Your task to perform on an android device: Go to wifi settings Image 0: 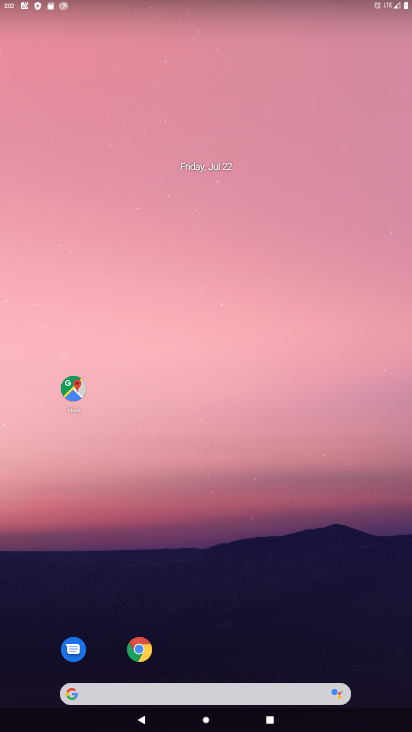
Step 0: drag from (217, 534) to (233, 246)
Your task to perform on an android device: Go to wifi settings Image 1: 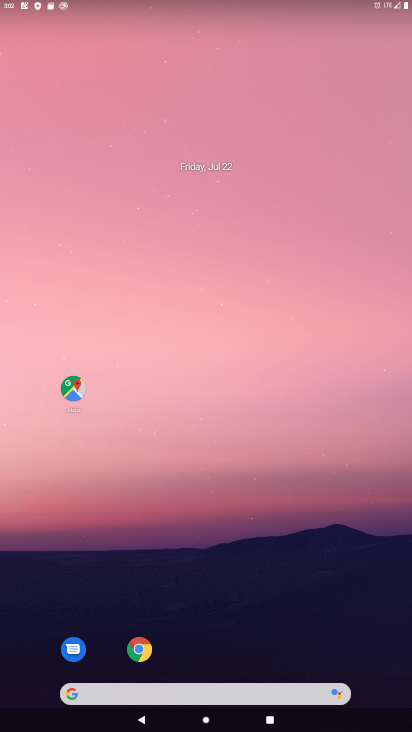
Step 1: drag from (217, 584) to (233, 464)
Your task to perform on an android device: Go to wifi settings Image 2: 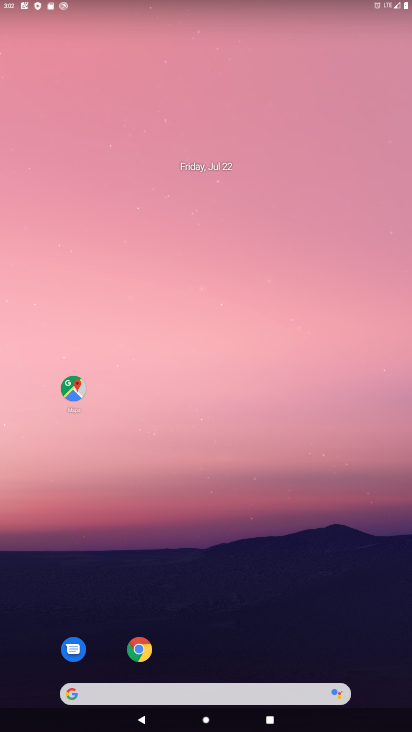
Step 2: drag from (198, 615) to (201, 149)
Your task to perform on an android device: Go to wifi settings Image 3: 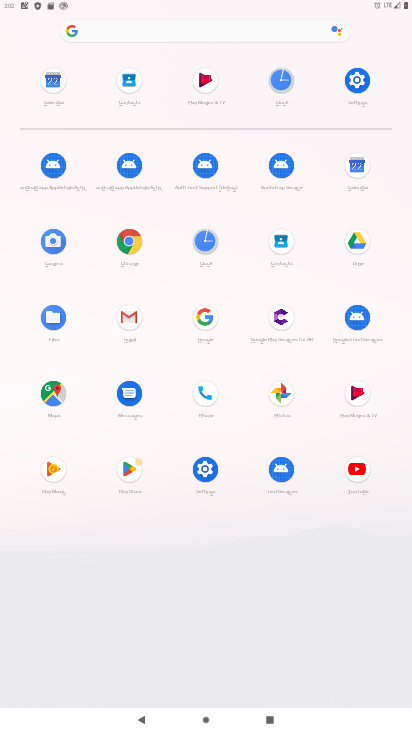
Step 3: click (202, 464)
Your task to perform on an android device: Go to wifi settings Image 4: 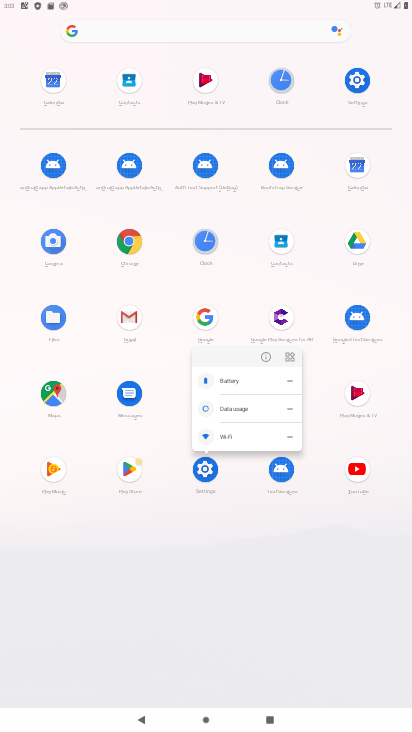
Step 4: click (262, 352)
Your task to perform on an android device: Go to wifi settings Image 5: 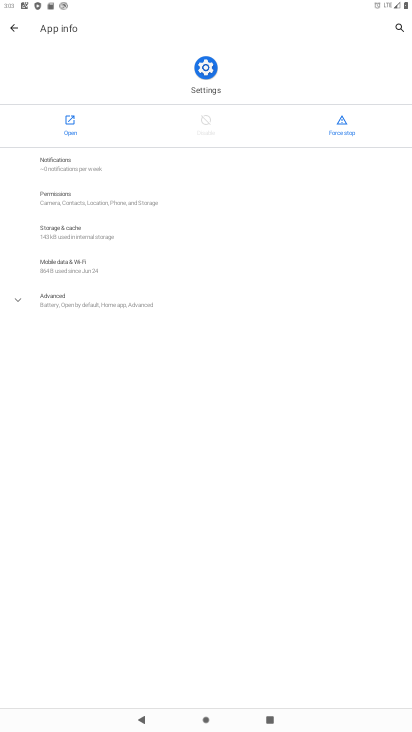
Step 5: drag from (235, 608) to (235, 473)
Your task to perform on an android device: Go to wifi settings Image 6: 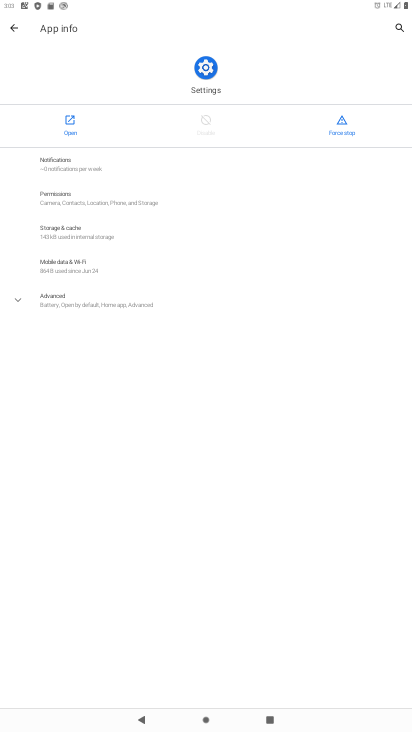
Step 6: drag from (201, 629) to (211, 310)
Your task to perform on an android device: Go to wifi settings Image 7: 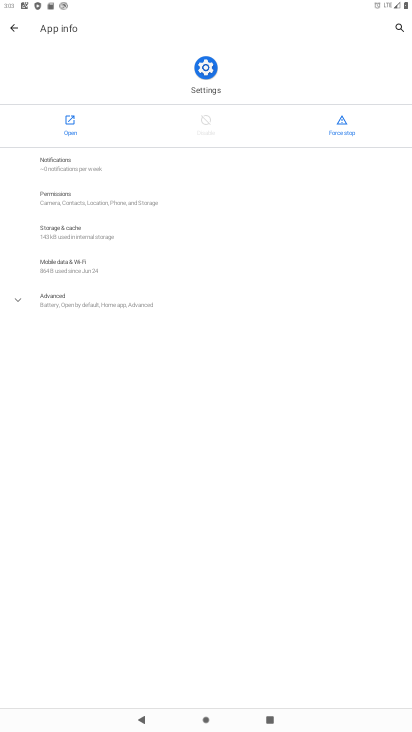
Step 7: drag from (179, 587) to (206, 396)
Your task to perform on an android device: Go to wifi settings Image 8: 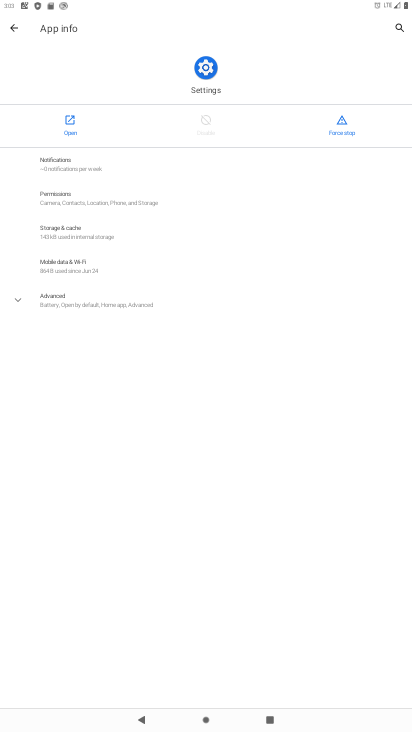
Step 8: click (73, 140)
Your task to perform on an android device: Go to wifi settings Image 9: 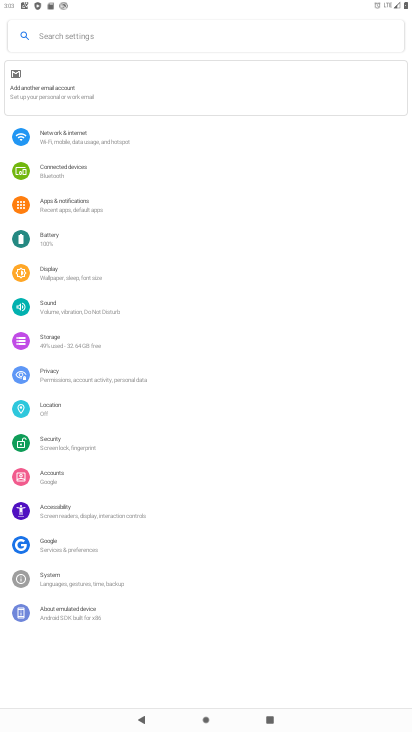
Step 9: click (64, 138)
Your task to perform on an android device: Go to wifi settings Image 10: 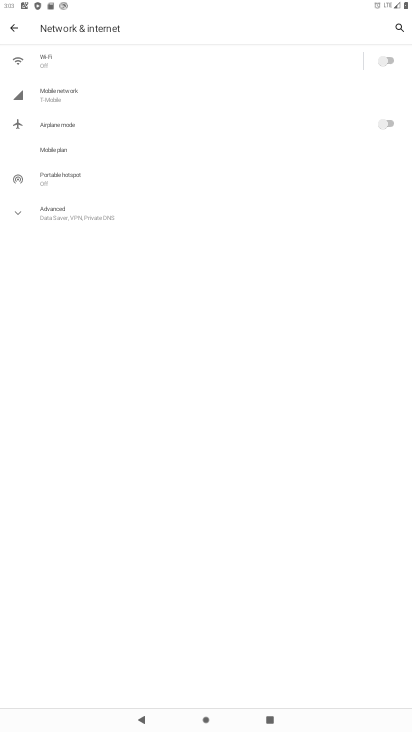
Step 10: drag from (233, 577) to (195, 241)
Your task to perform on an android device: Go to wifi settings Image 11: 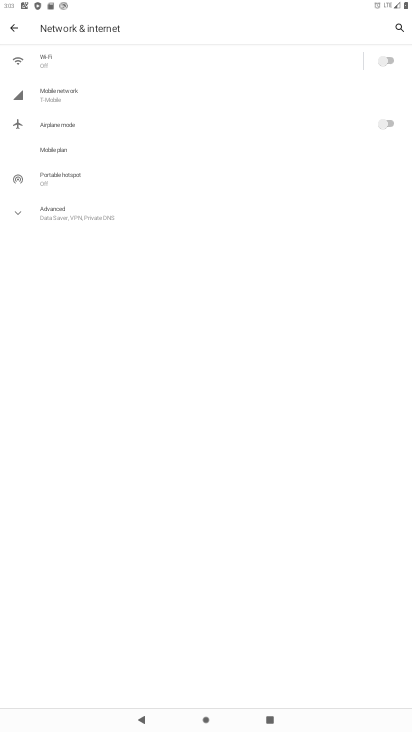
Step 11: click (74, 53)
Your task to perform on an android device: Go to wifi settings Image 12: 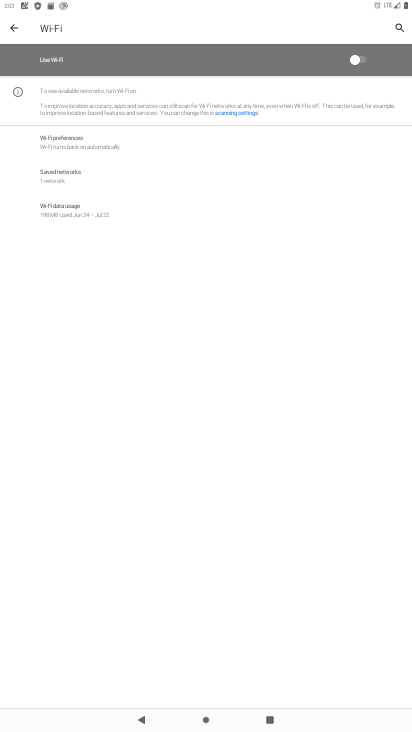
Step 12: task complete